Your task to perform on an android device: Go to eBay Image 0: 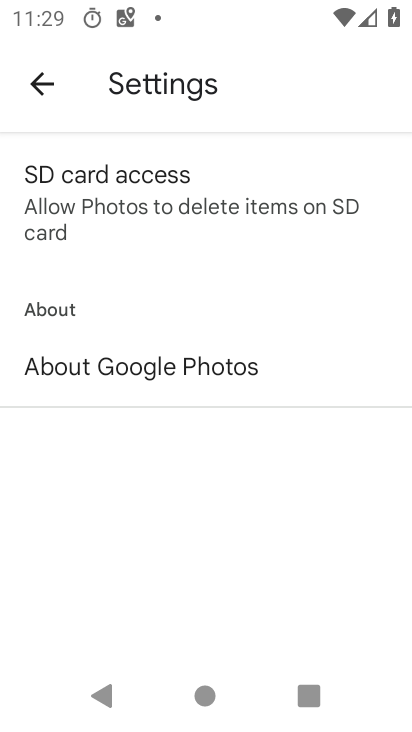
Step 0: press home button
Your task to perform on an android device: Go to eBay Image 1: 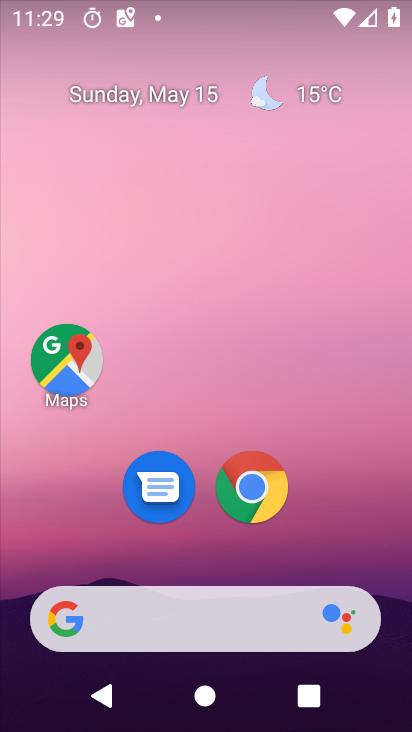
Step 1: click (261, 483)
Your task to perform on an android device: Go to eBay Image 2: 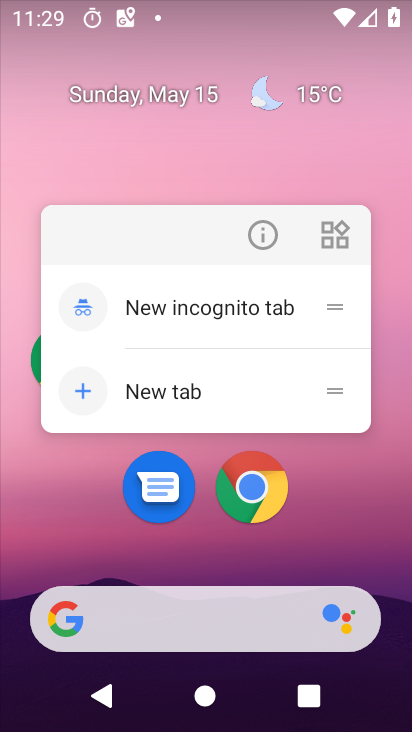
Step 2: click (261, 484)
Your task to perform on an android device: Go to eBay Image 3: 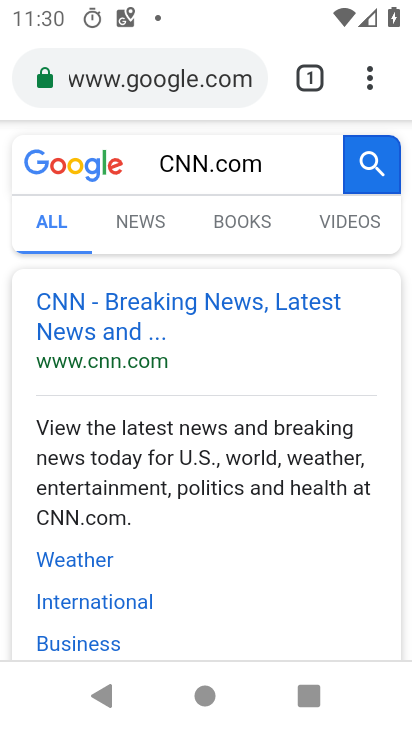
Step 3: click (251, 77)
Your task to perform on an android device: Go to eBay Image 4: 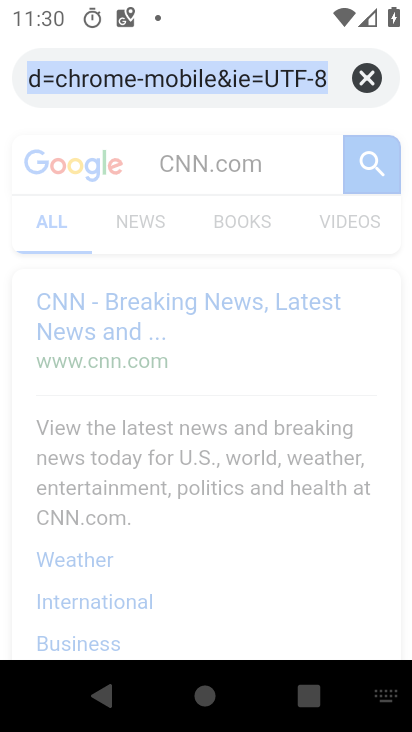
Step 4: click (363, 82)
Your task to perform on an android device: Go to eBay Image 5: 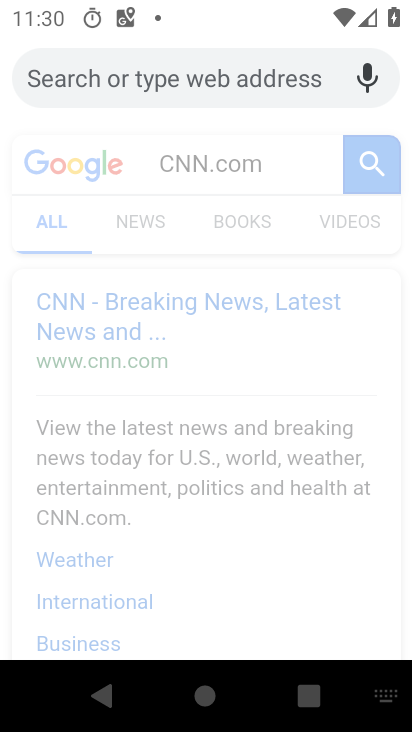
Step 5: type "eBay"
Your task to perform on an android device: Go to eBay Image 6: 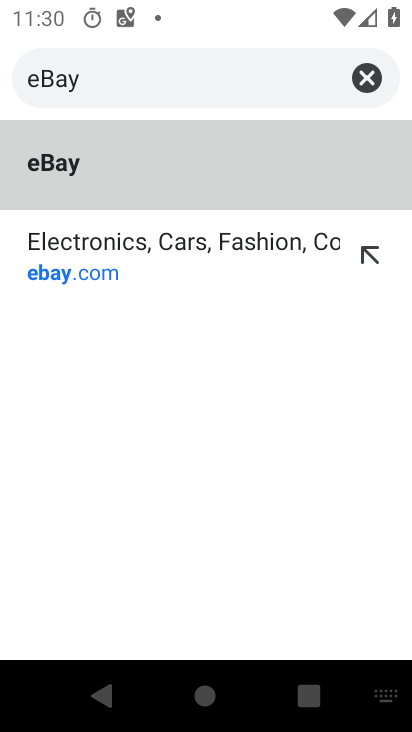
Step 6: click (54, 172)
Your task to perform on an android device: Go to eBay Image 7: 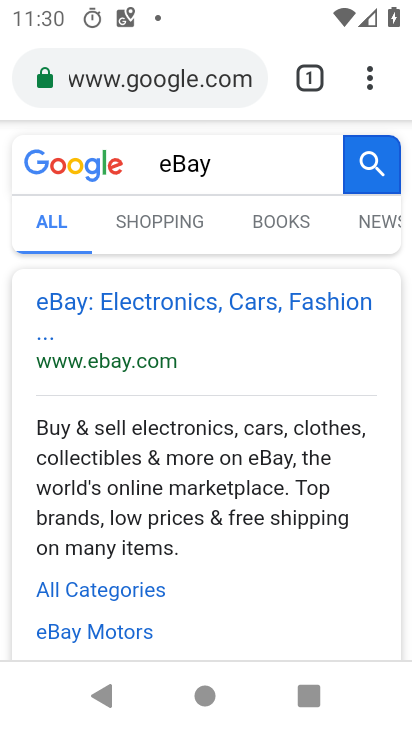
Step 7: task complete